Your task to perform on an android device: Open wifi settings Image 0: 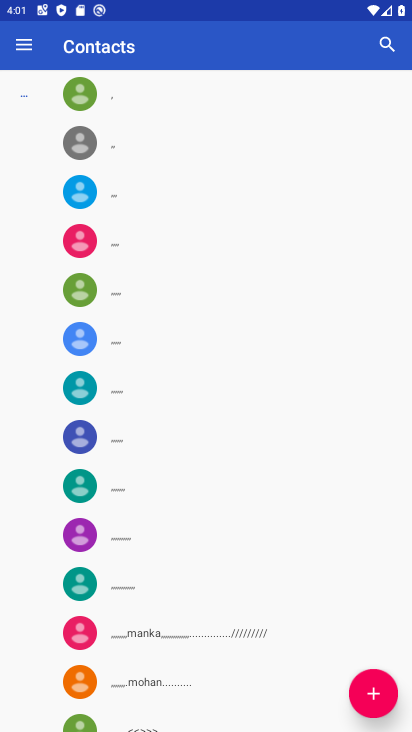
Step 0: press back button
Your task to perform on an android device: Open wifi settings Image 1: 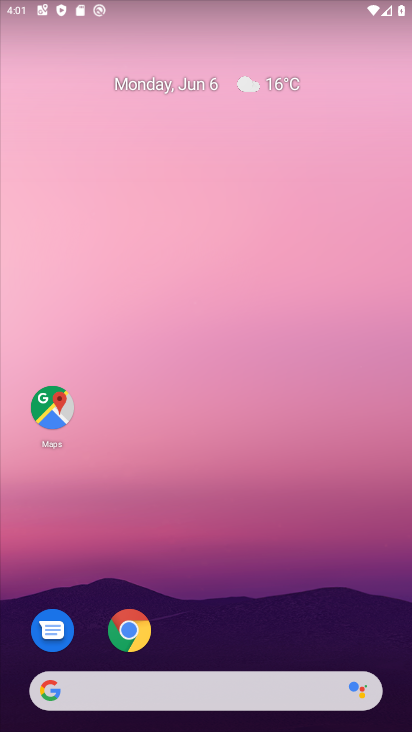
Step 1: drag from (191, 7) to (205, 554)
Your task to perform on an android device: Open wifi settings Image 2: 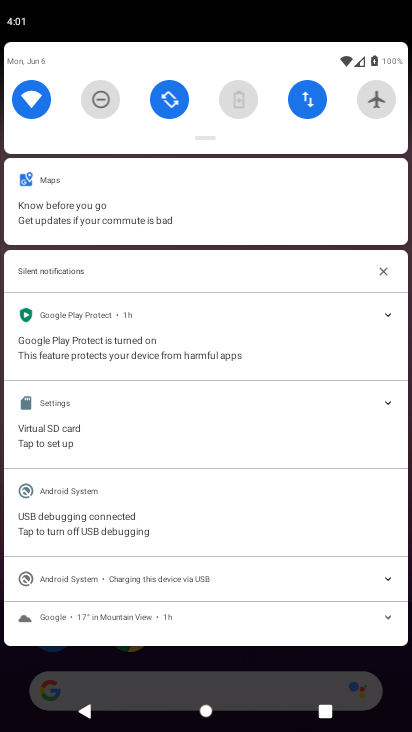
Step 2: click (31, 111)
Your task to perform on an android device: Open wifi settings Image 3: 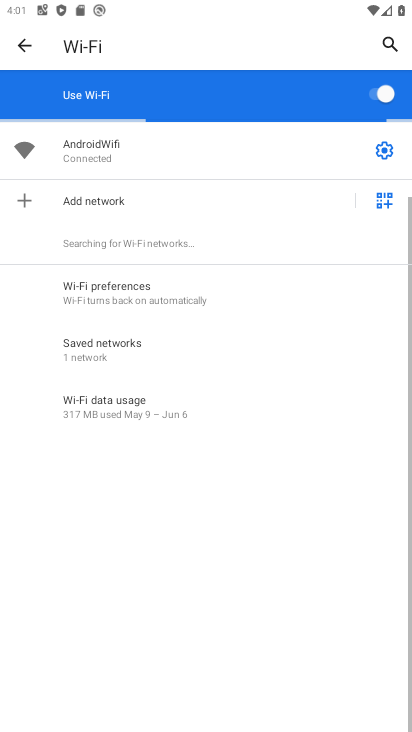
Step 3: task complete